Your task to perform on an android device: open wifi settings Image 0: 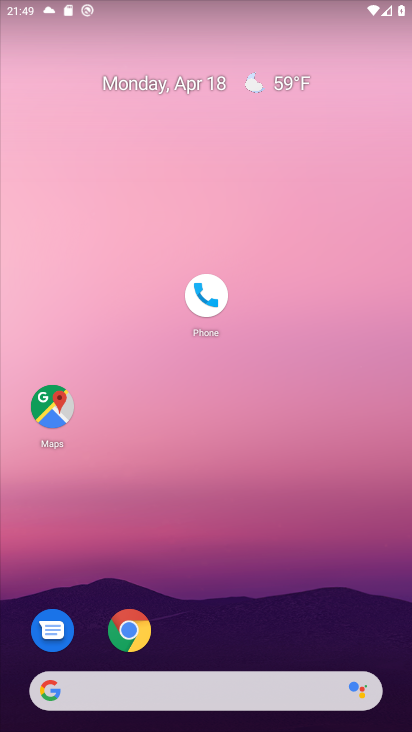
Step 0: drag from (301, 574) to (342, 84)
Your task to perform on an android device: open wifi settings Image 1: 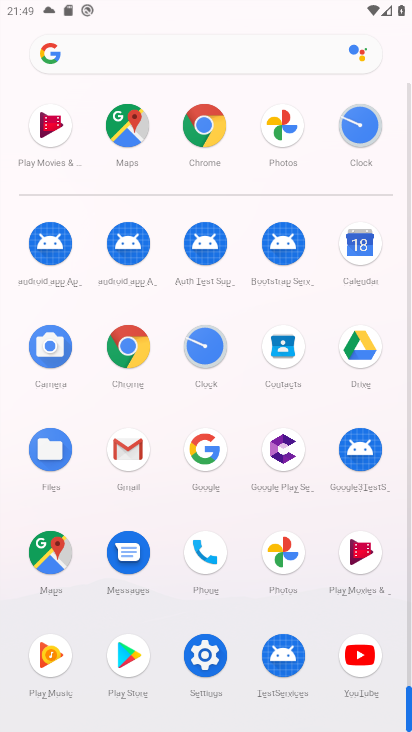
Step 1: click (206, 662)
Your task to perform on an android device: open wifi settings Image 2: 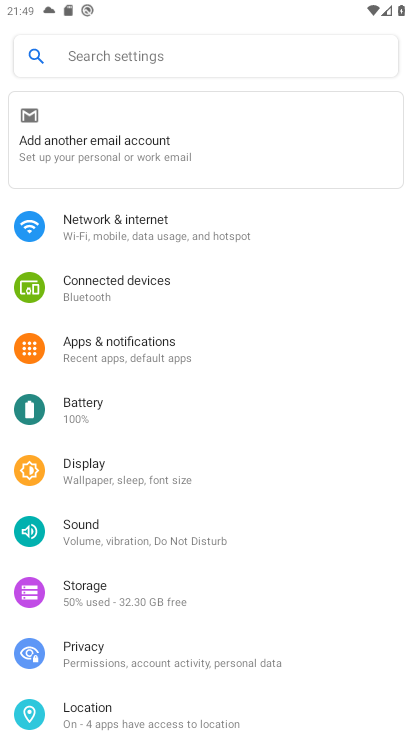
Step 2: click (155, 223)
Your task to perform on an android device: open wifi settings Image 3: 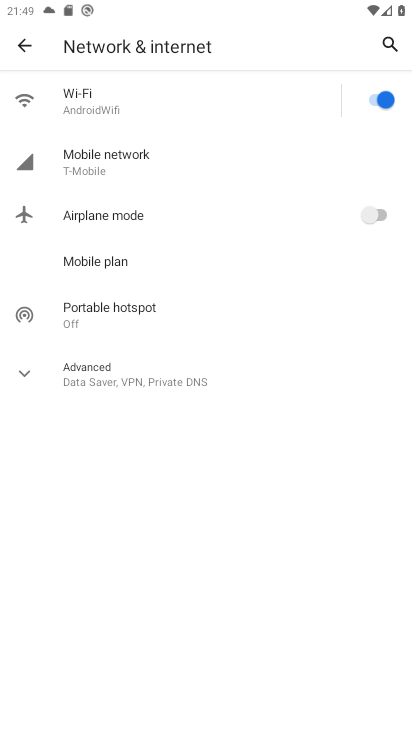
Step 3: click (117, 103)
Your task to perform on an android device: open wifi settings Image 4: 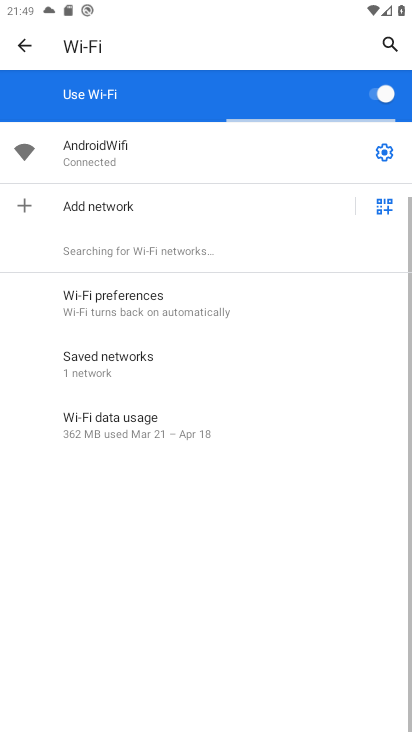
Step 4: click (386, 154)
Your task to perform on an android device: open wifi settings Image 5: 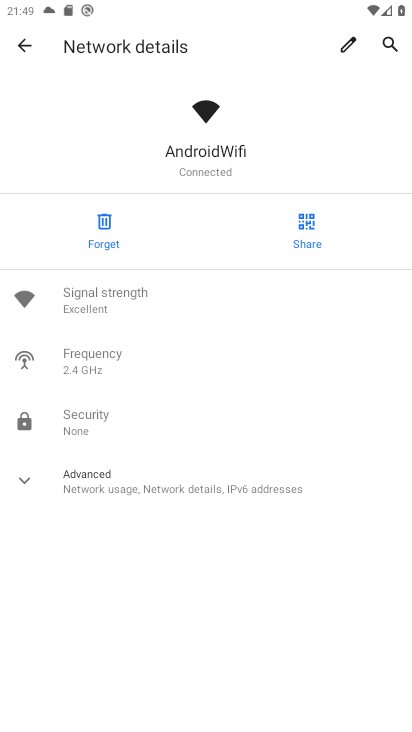
Step 5: task complete